Your task to perform on an android device: open chrome and create a bookmark for the current page Image 0: 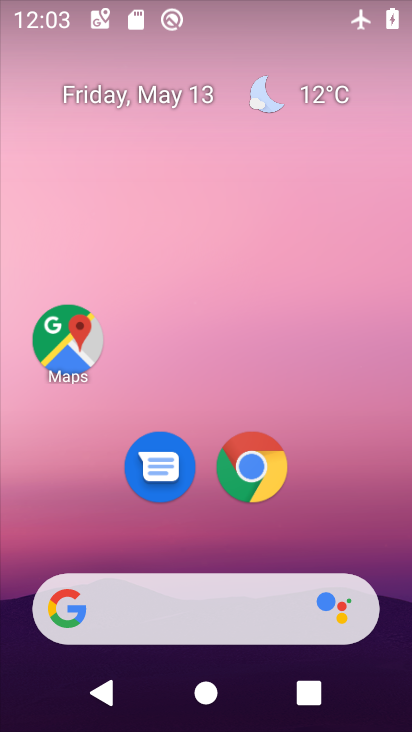
Step 0: click (250, 466)
Your task to perform on an android device: open chrome and create a bookmark for the current page Image 1: 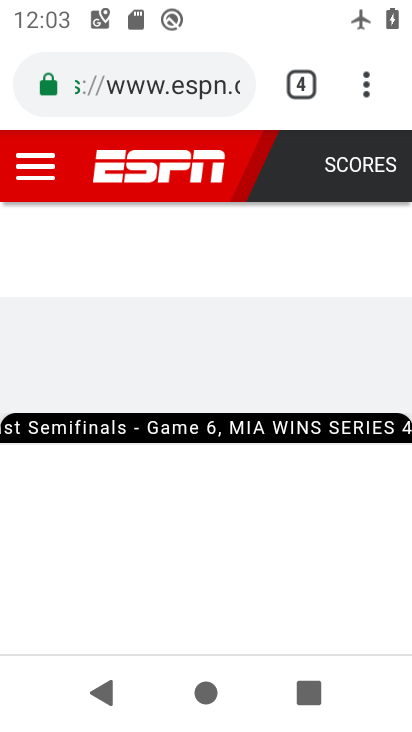
Step 1: click (363, 77)
Your task to perform on an android device: open chrome and create a bookmark for the current page Image 2: 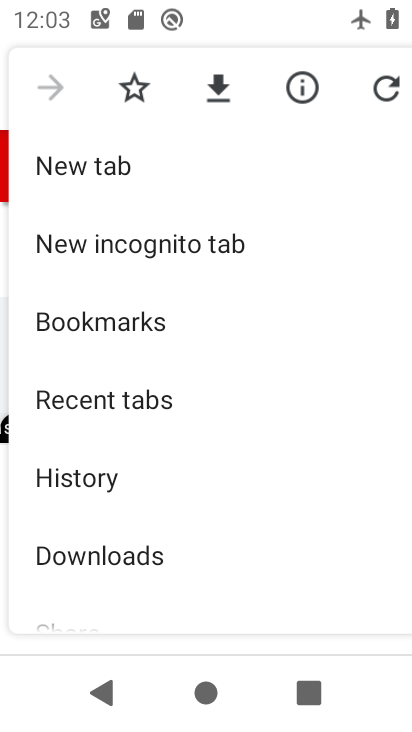
Step 2: click (133, 88)
Your task to perform on an android device: open chrome and create a bookmark for the current page Image 3: 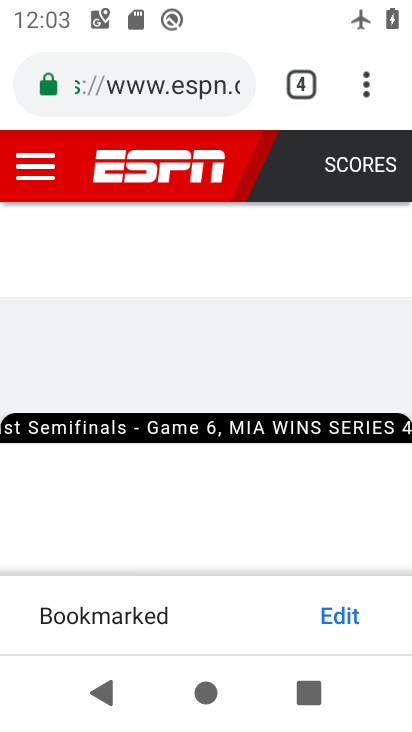
Step 3: task complete